Your task to perform on an android device: Search for vegetarian restaurants on Maps Image 0: 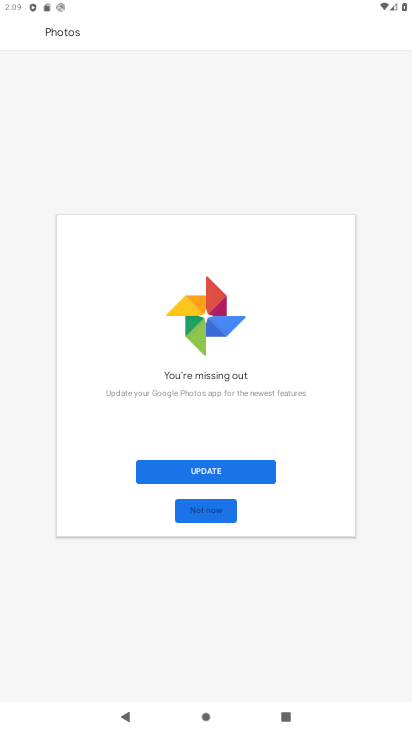
Step 0: press home button
Your task to perform on an android device: Search for vegetarian restaurants on Maps Image 1: 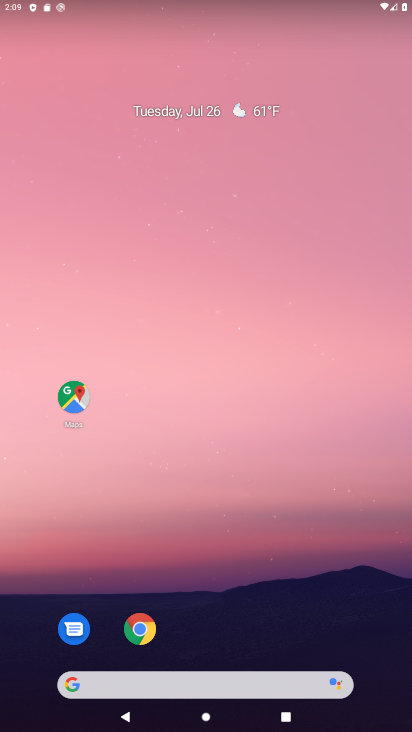
Step 1: drag from (221, 593) to (207, 20)
Your task to perform on an android device: Search for vegetarian restaurants on Maps Image 2: 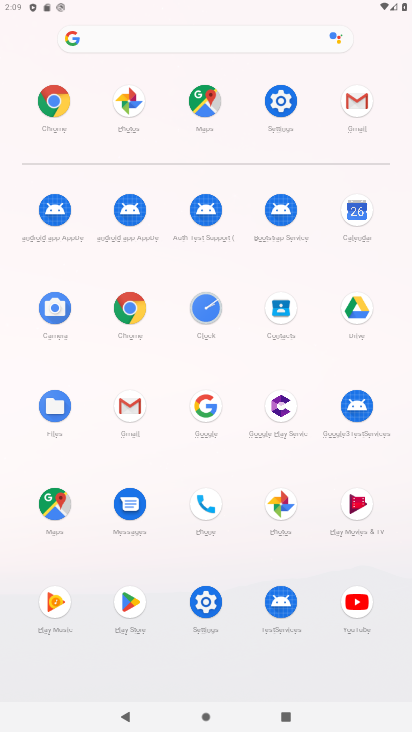
Step 2: click (204, 99)
Your task to perform on an android device: Search for vegetarian restaurants on Maps Image 3: 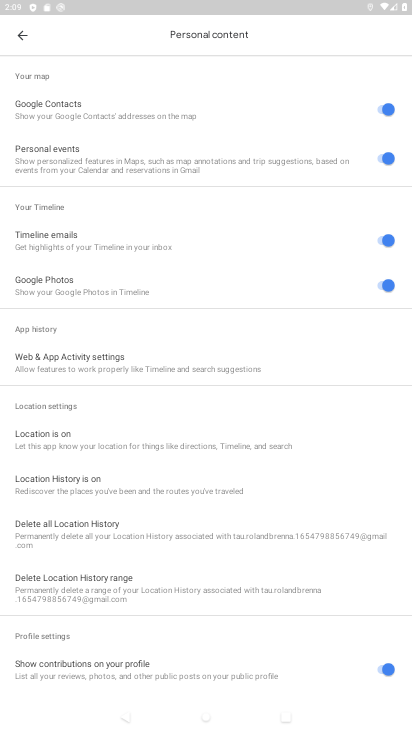
Step 3: click (23, 43)
Your task to perform on an android device: Search for vegetarian restaurants on Maps Image 4: 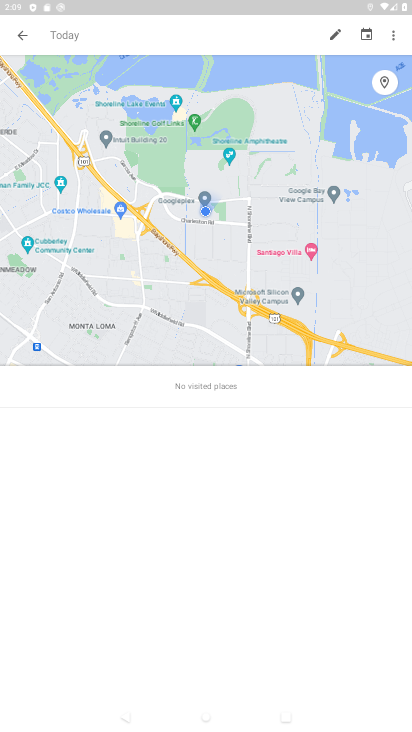
Step 4: click (23, 32)
Your task to perform on an android device: Search for vegetarian restaurants on Maps Image 5: 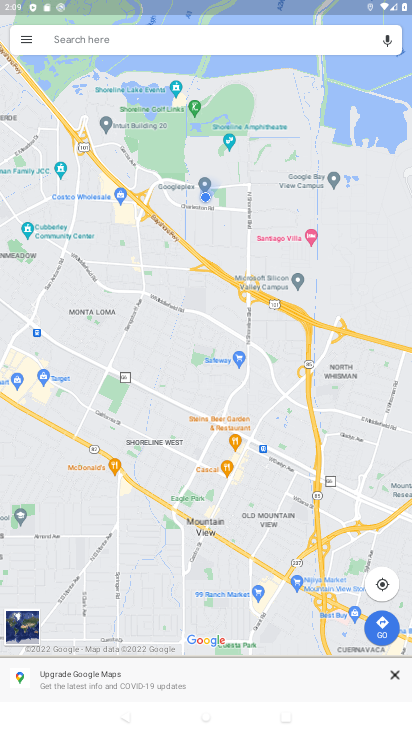
Step 5: click (113, 29)
Your task to perform on an android device: Search for vegetarian restaurants on Maps Image 6: 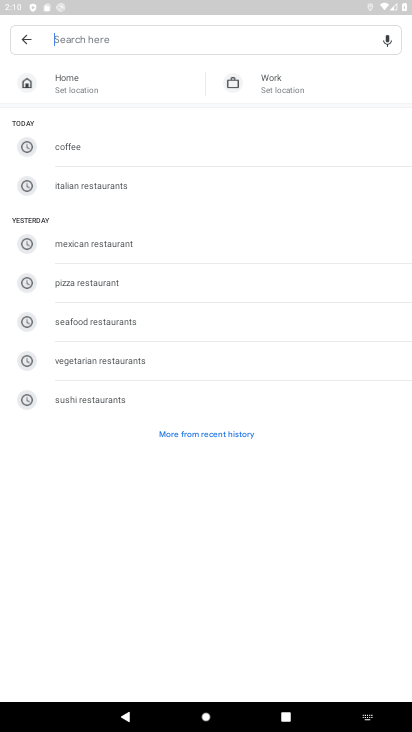
Step 6: click (105, 356)
Your task to perform on an android device: Search for vegetarian restaurants on Maps Image 7: 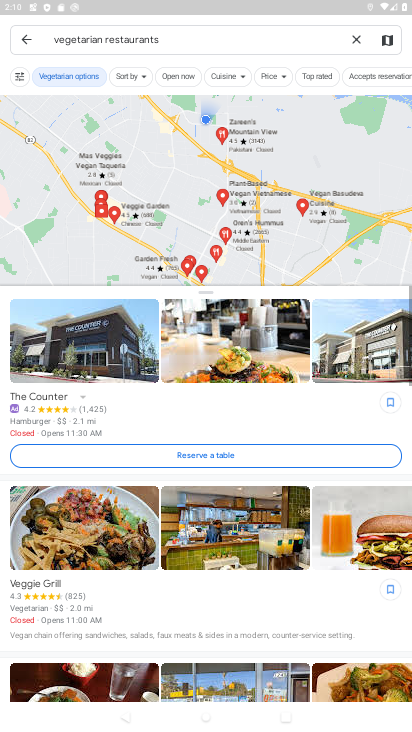
Step 7: task complete